Your task to perform on an android device: toggle improve location accuracy Image 0: 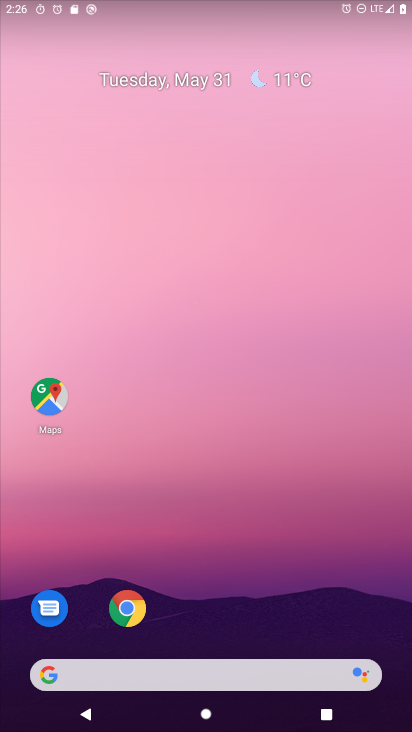
Step 0: drag from (319, 555) to (320, 72)
Your task to perform on an android device: toggle improve location accuracy Image 1: 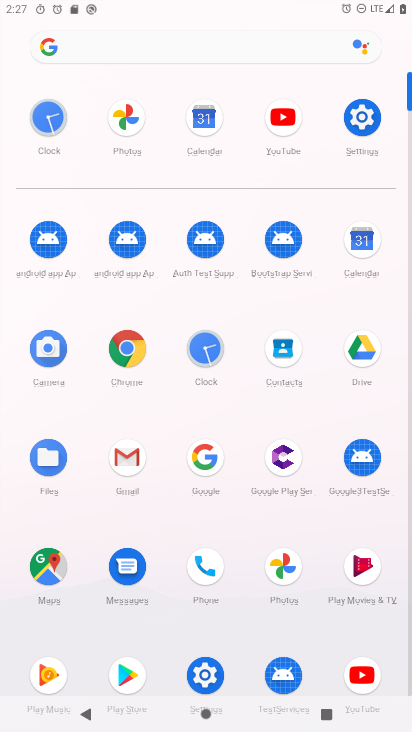
Step 1: click (354, 121)
Your task to perform on an android device: toggle improve location accuracy Image 2: 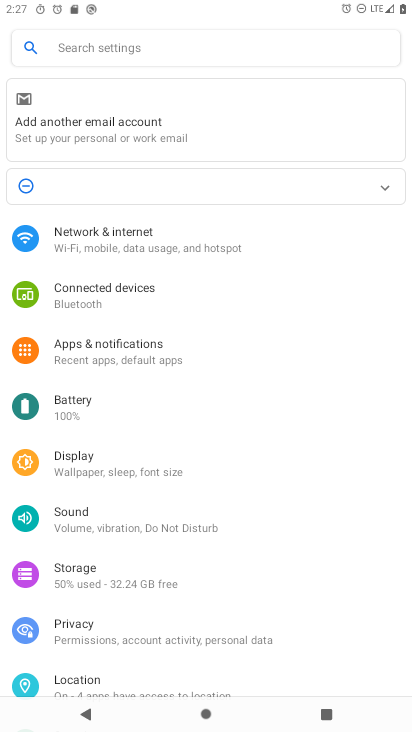
Step 2: click (85, 688)
Your task to perform on an android device: toggle improve location accuracy Image 3: 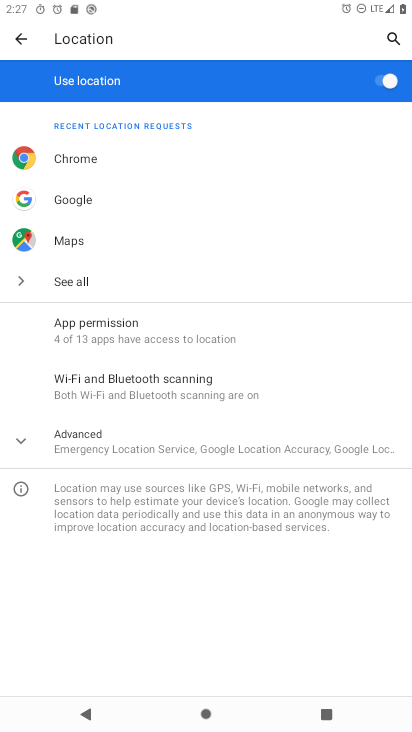
Step 3: click (17, 442)
Your task to perform on an android device: toggle improve location accuracy Image 4: 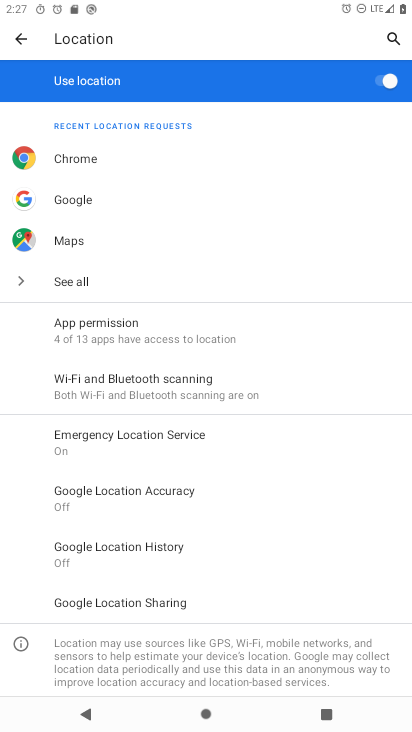
Step 4: click (98, 491)
Your task to perform on an android device: toggle improve location accuracy Image 5: 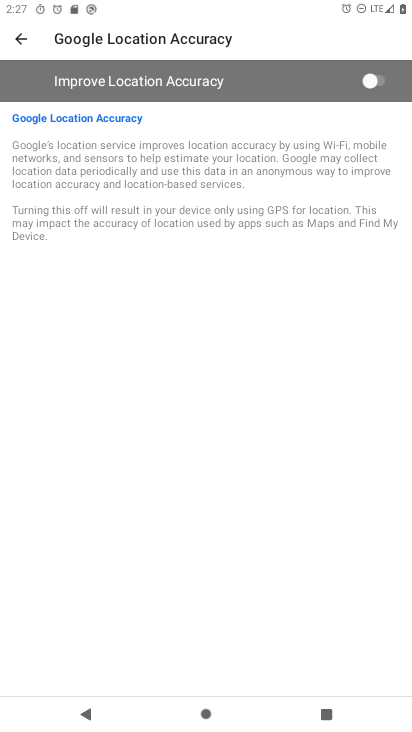
Step 5: click (370, 82)
Your task to perform on an android device: toggle improve location accuracy Image 6: 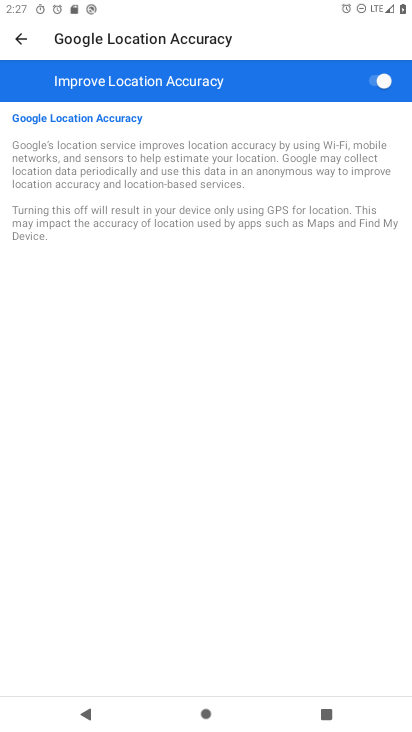
Step 6: task complete